Your task to perform on an android device: Is it going to rain today? Image 0: 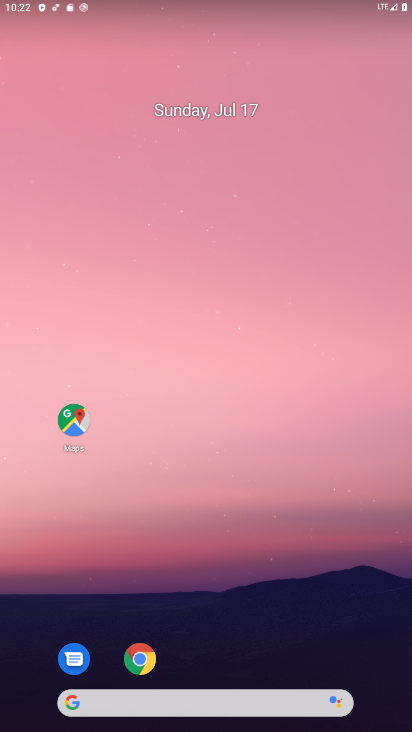
Step 0: click (136, 667)
Your task to perform on an android device: Is it going to rain today? Image 1: 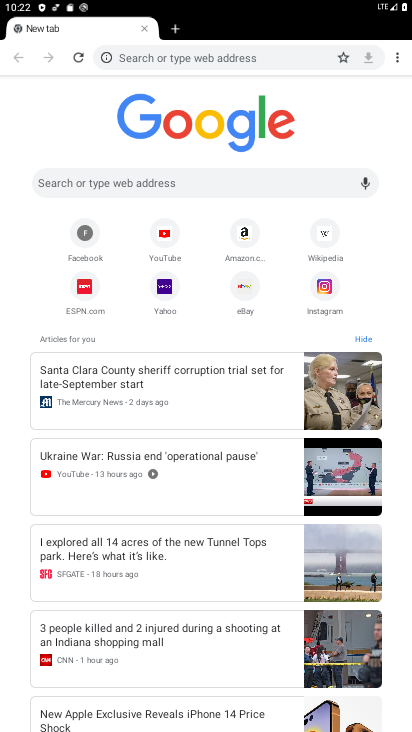
Step 1: click (188, 181)
Your task to perform on an android device: Is it going to rain today? Image 2: 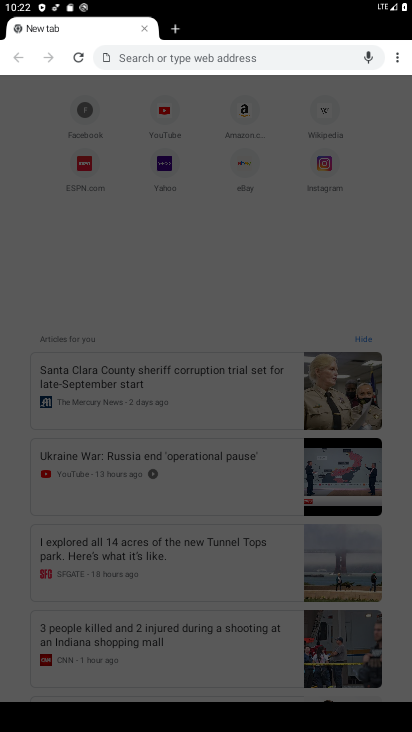
Step 2: type "Is it going to rain today?"
Your task to perform on an android device: Is it going to rain today? Image 3: 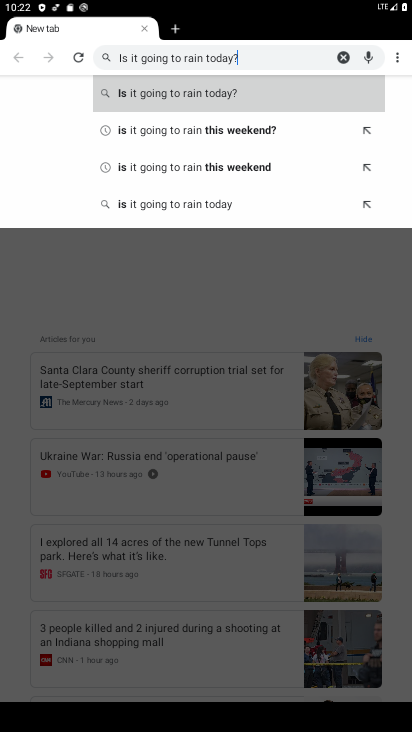
Step 3: type ""
Your task to perform on an android device: Is it going to rain today? Image 4: 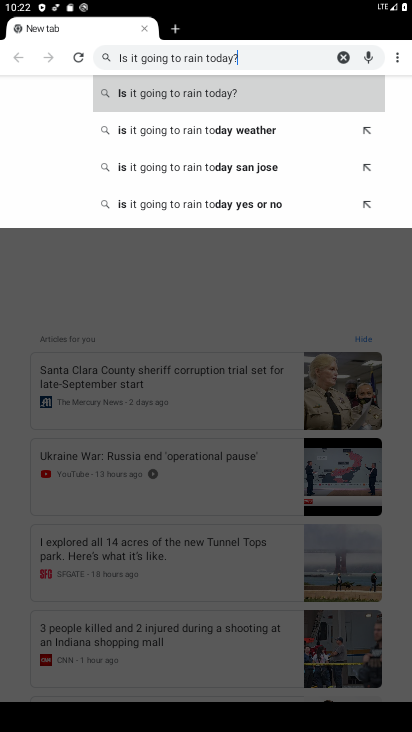
Step 4: press enter
Your task to perform on an android device: Is it going to rain today? Image 5: 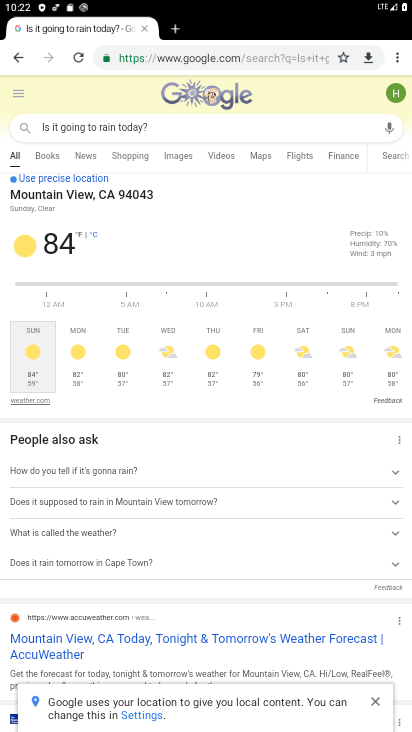
Step 5: task complete